Your task to perform on an android device: Show me productivity apps on the Play Store Image 0: 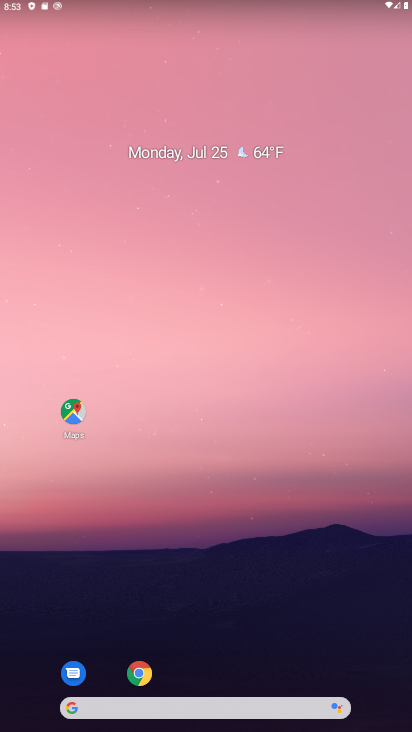
Step 0: drag from (199, 678) to (201, 49)
Your task to perform on an android device: Show me productivity apps on the Play Store Image 1: 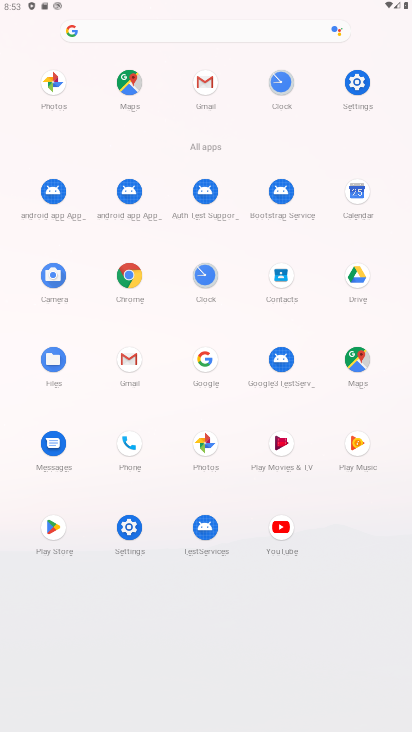
Step 1: click (51, 518)
Your task to perform on an android device: Show me productivity apps on the Play Store Image 2: 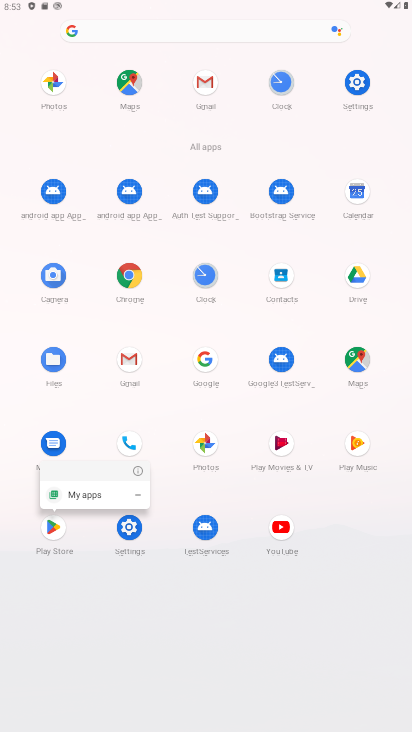
Step 2: click (53, 526)
Your task to perform on an android device: Show me productivity apps on the Play Store Image 3: 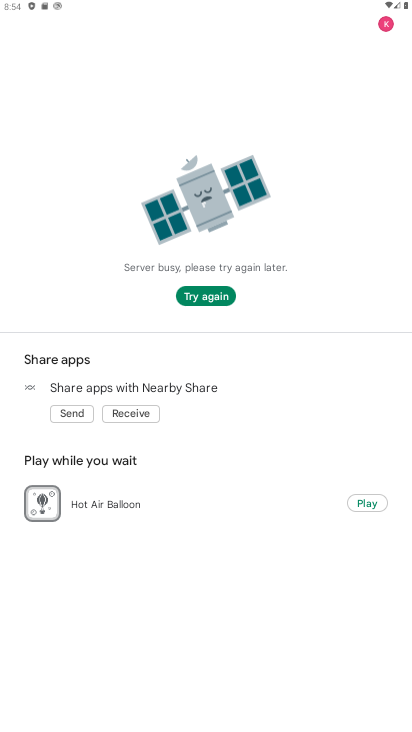
Step 3: click (195, 296)
Your task to perform on an android device: Show me productivity apps on the Play Store Image 4: 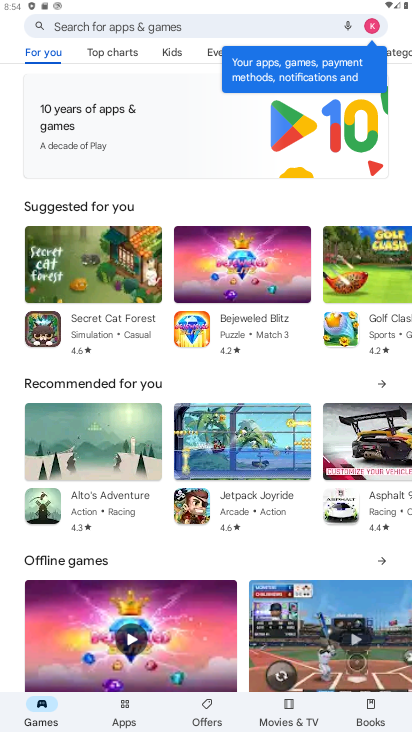
Step 4: click (119, 710)
Your task to perform on an android device: Show me productivity apps on the Play Store Image 5: 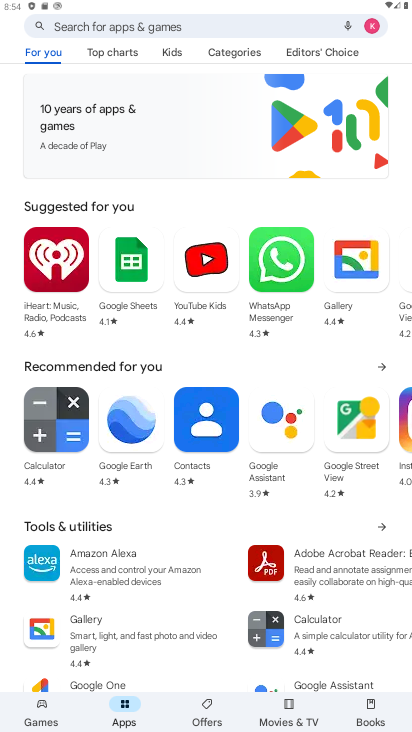
Step 5: click (237, 50)
Your task to perform on an android device: Show me productivity apps on the Play Store Image 6: 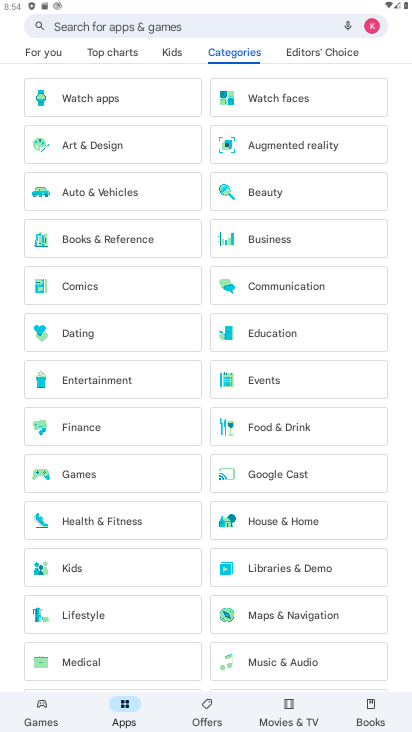
Step 6: drag from (201, 645) to (207, 164)
Your task to perform on an android device: Show me productivity apps on the Play Store Image 7: 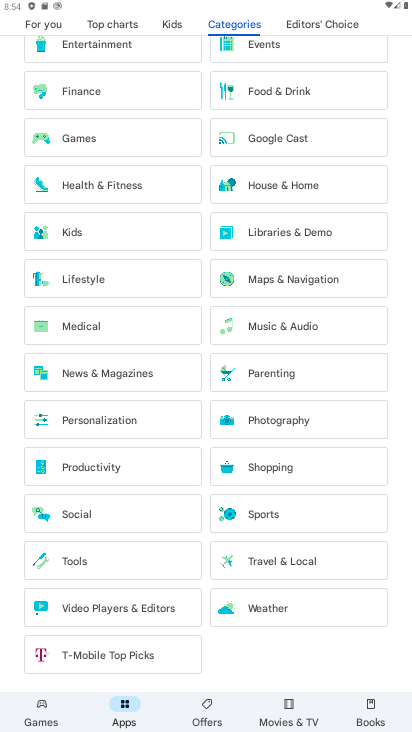
Step 7: click (133, 465)
Your task to perform on an android device: Show me productivity apps on the Play Store Image 8: 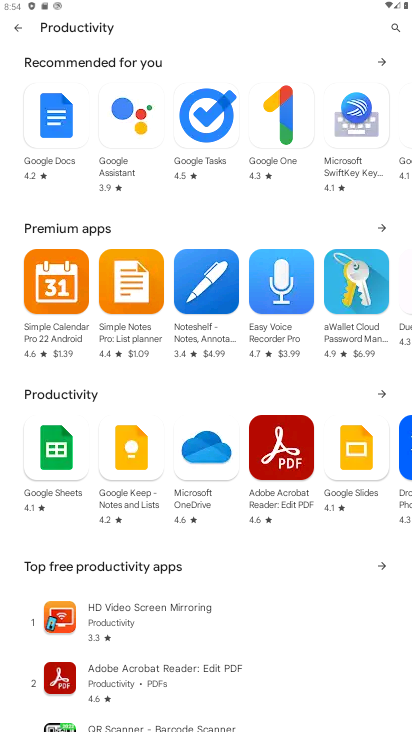
Step 8: click (379, 391)
Your task to perform on an android device: Show me productivity apps on the Play Store Image 9: 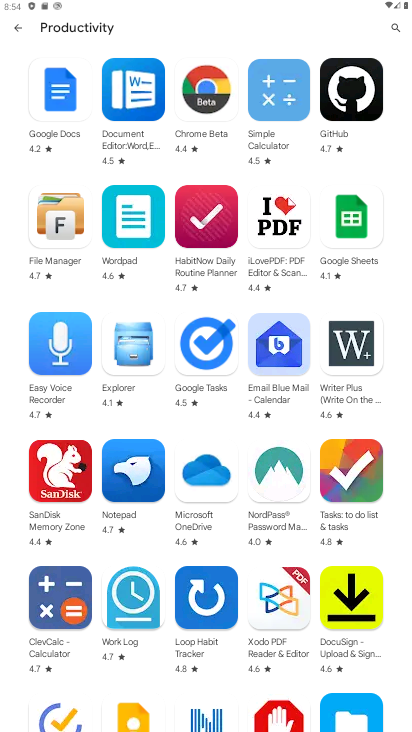
Step 9: task complete